Your task to perform on an android device: check battery use Image 0: 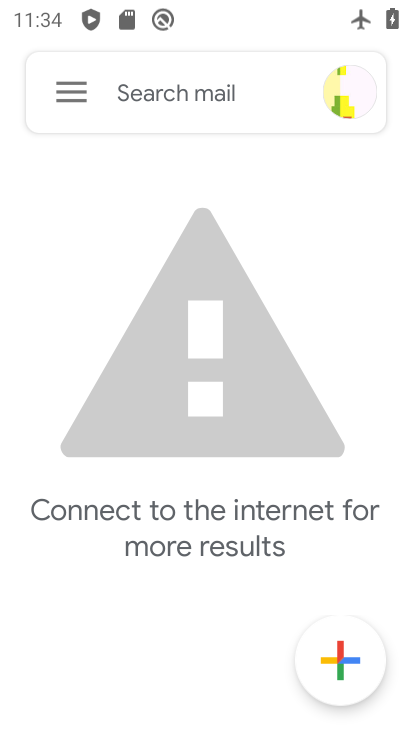
Step 0: press home button
Your task to perform on an android device: check battery use Image 1: 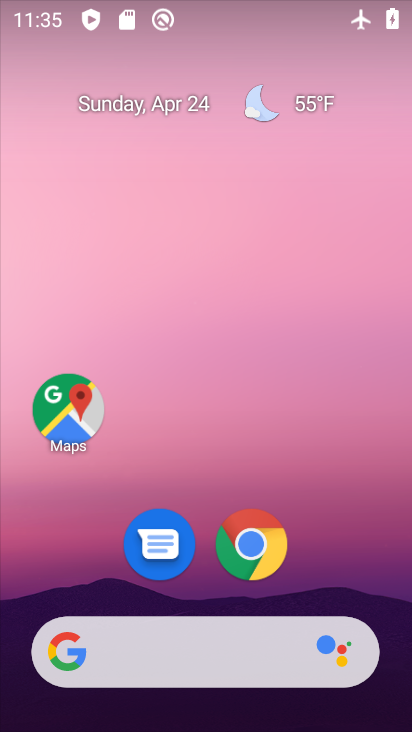
Step 1: drag from (341, 525) to (92, 79)
Your task to perform on an android device: check battery use Image 2: 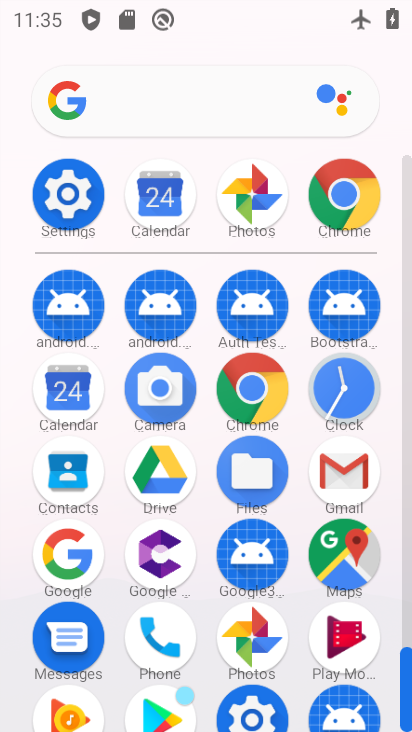
Step 2: click (64, 178)
Your task to perform on an android device: check battery use Image 3: 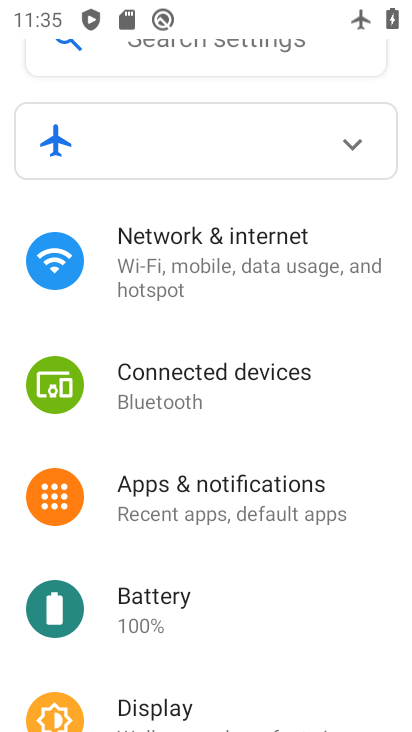
Step 3: click (146, 616)
Your task to perform on an android device: check battery use Image 4: 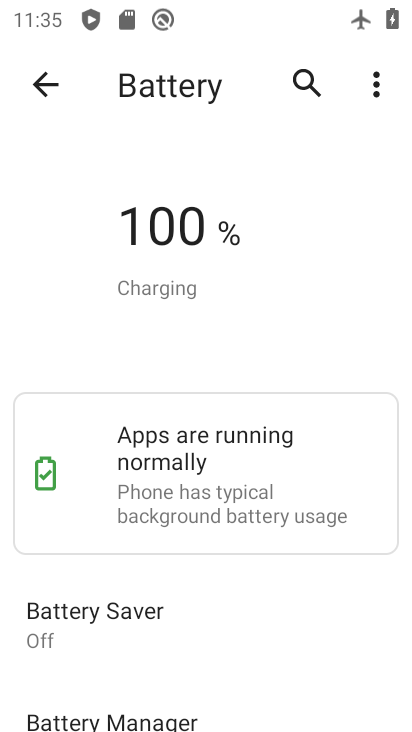
Step 4: task complete